Your task to perform on an android device: Go to wifi settings Image 0: 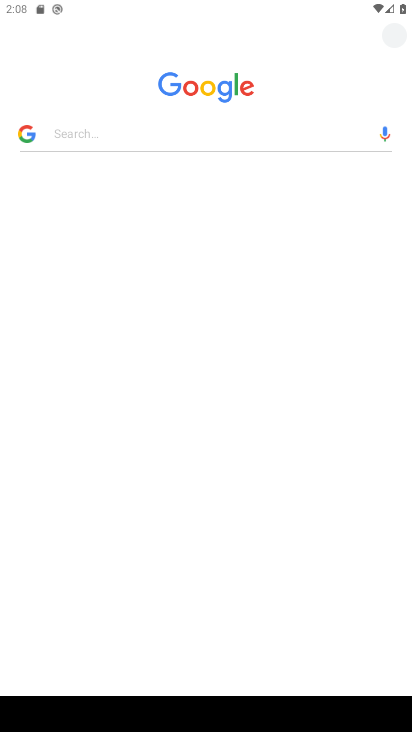
Step 0: press home button
Your task to perform on an android device: Go to wifi settings Image 1: 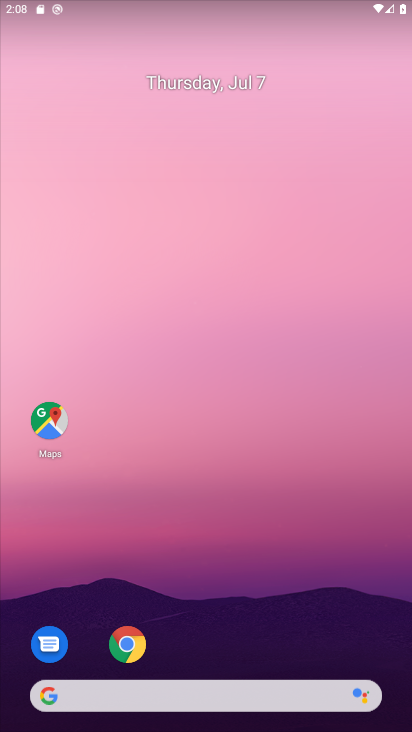
Step 1: drag from (245, 701) to (251, 257)
Your task to perform on an android device: Go to wifi settings Image 2: 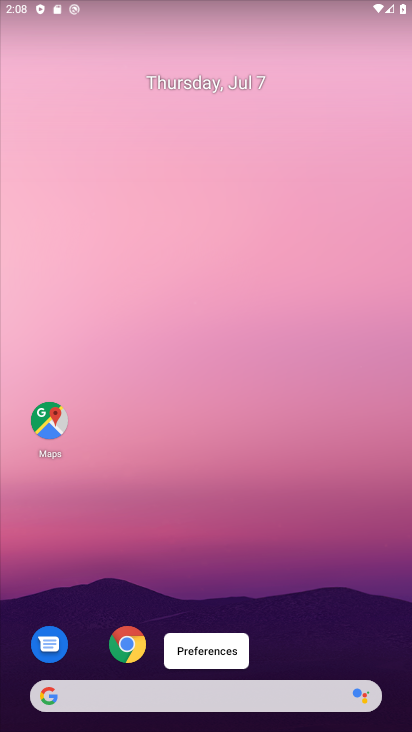
Step 2: drag from (209, 686) to (183, 214)
Your task to perform on an android device: Go to wifi settings Image 3: 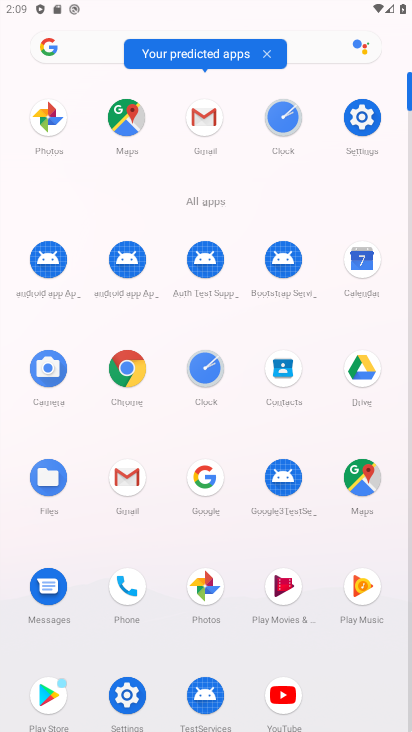
Step 3: click (361, 122)
Your task to perform on an android device: Go to wifi settings Image 4: 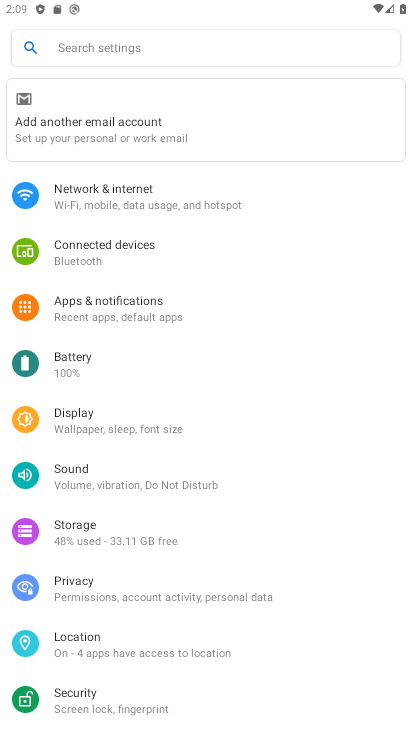
Step 4: click (154, 197)
Your task to perform on an android device: Go to wifi settings Image 5: 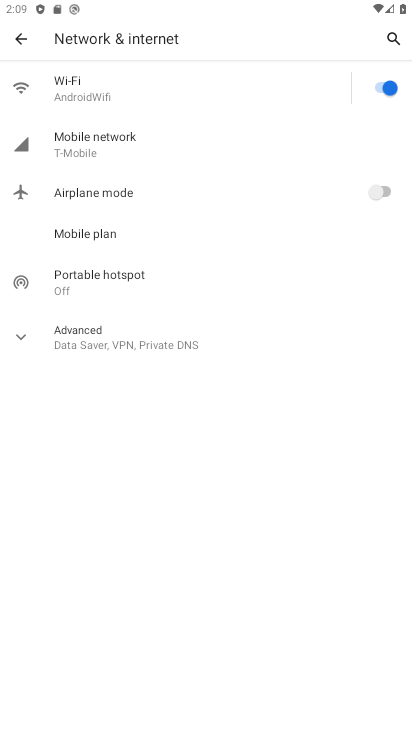
Step 5: click (136, 83)
Your task to perform on an android device: Go to wifi settings Image 6: 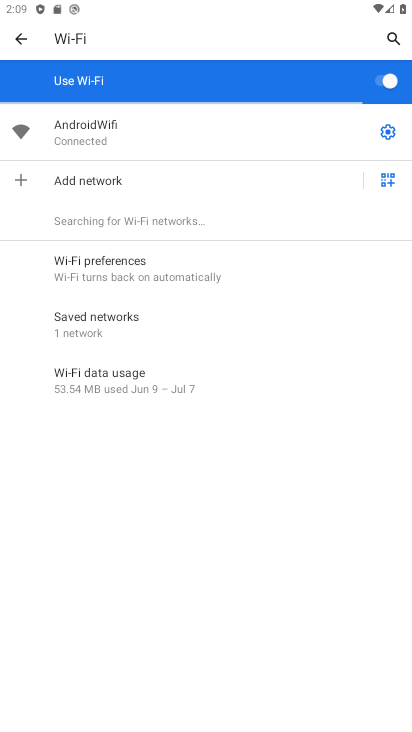
Step 6: task complete